Your task to perform on an android device: Open Google Chrome and click the shortcut for Amazon.com Image 0: 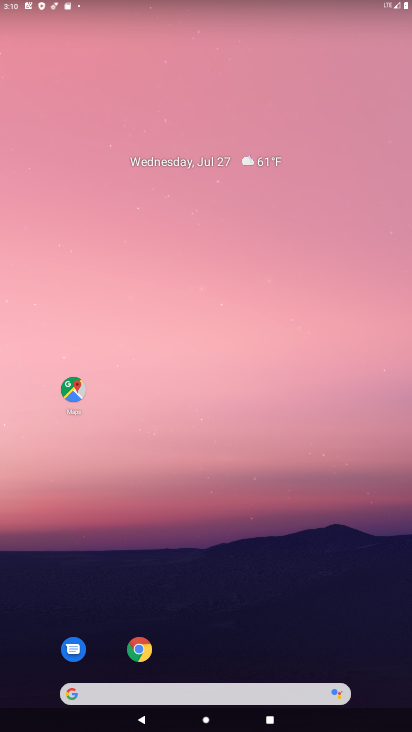
Step 0: click (137, 658)
Your task to perform on an android device: Open Google Chrome and click the shortcut for Amazon.com Image 1: 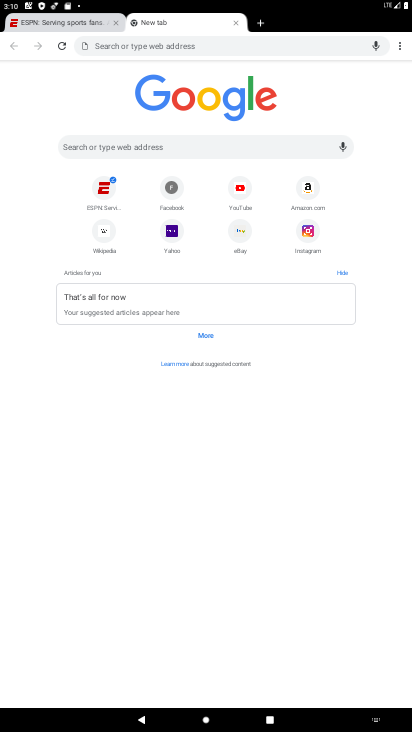
Step 1: click (310, 187)
Your task to perform on an android device: Open Google Chrome and click the shortcut for Amazon.com Image 2: 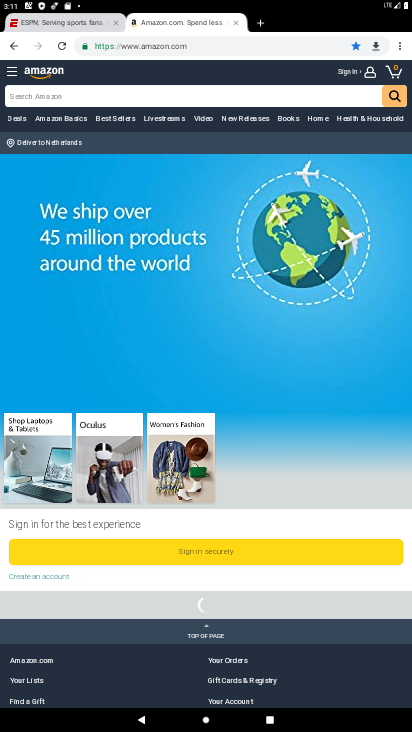
Step 2: task complete